Your task to perform on an android device: Search for "logitech g pro" on ebay.com, select the first entry, and add it to the cart. Image 0: 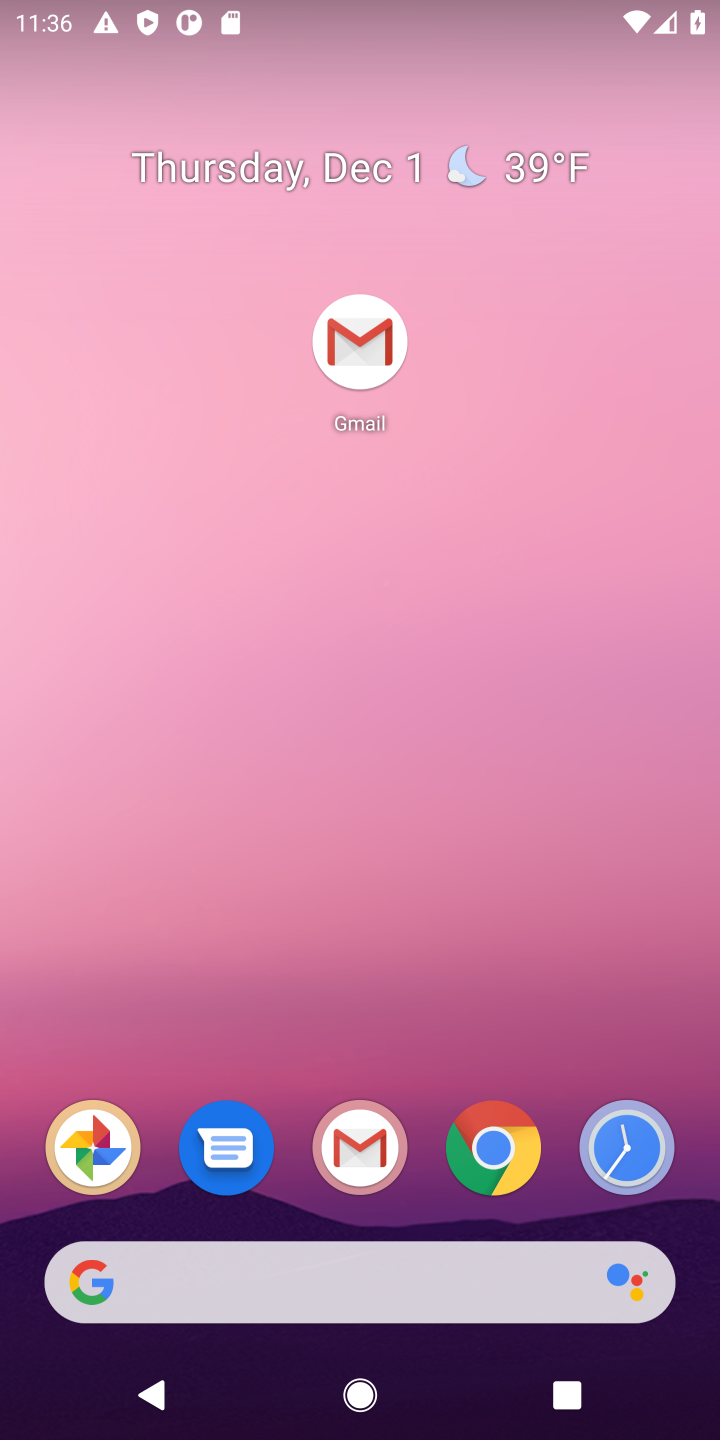
Step 0: press home button
Your task to perform on an android device: Search for "logitech g pro" on ebay.com, select the first entry, and add it to the cart. Image 1: 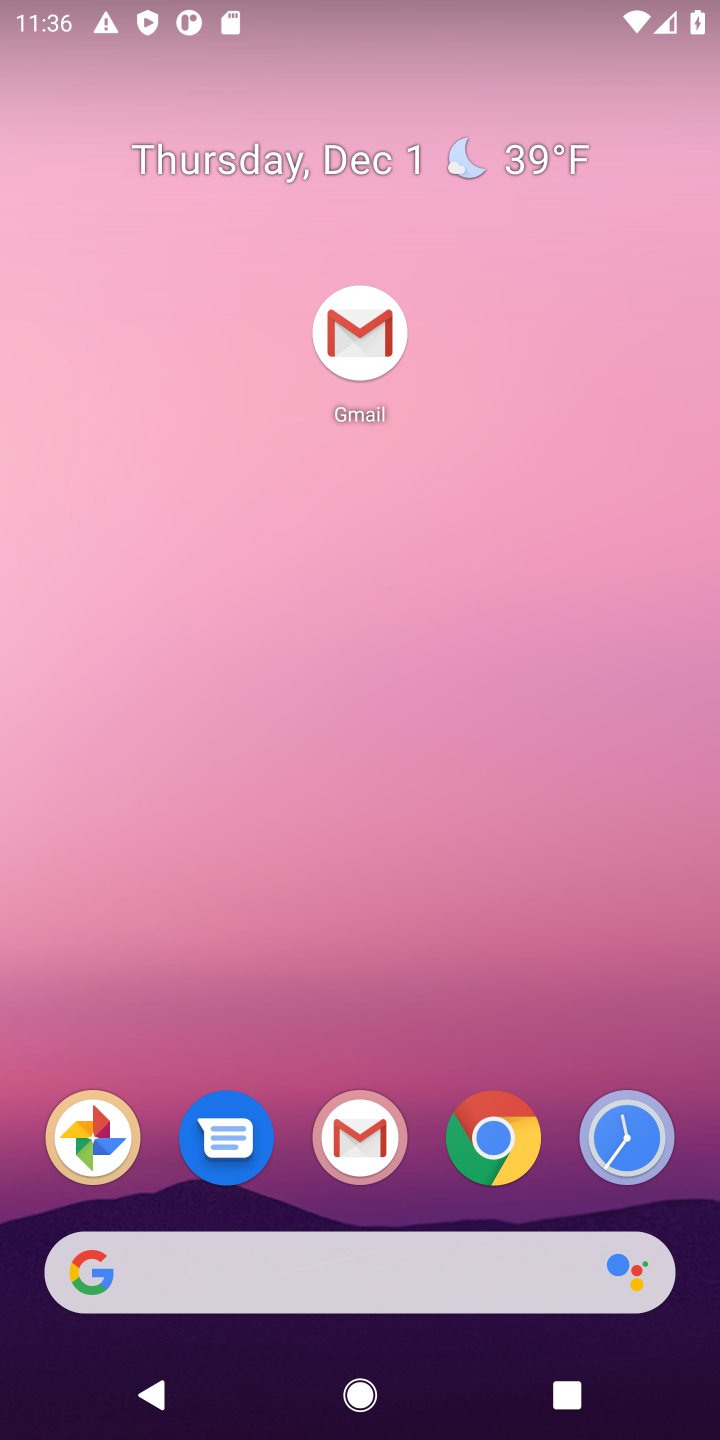
Step 1: drag from (407, 1192) to (456, 325)
Your task to perform on an android device: Search for "logitech g pro" on ebay.com, select the first entry, and add it to the cart. Image 2: 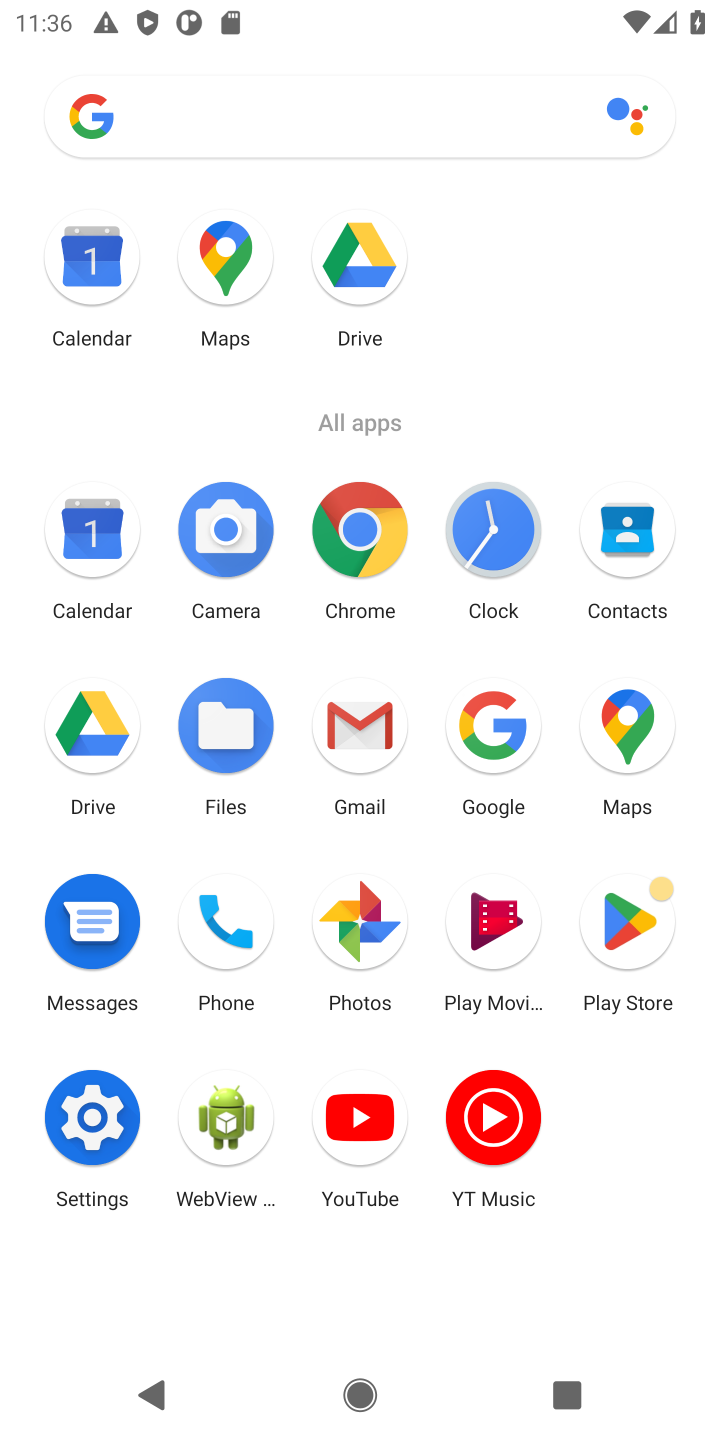
Step 2: click (500, 745)
Your task to perform on an android device: Search for "logitech g pro" on ebay.com, select the first entry, and add it to the cart. Image 3: 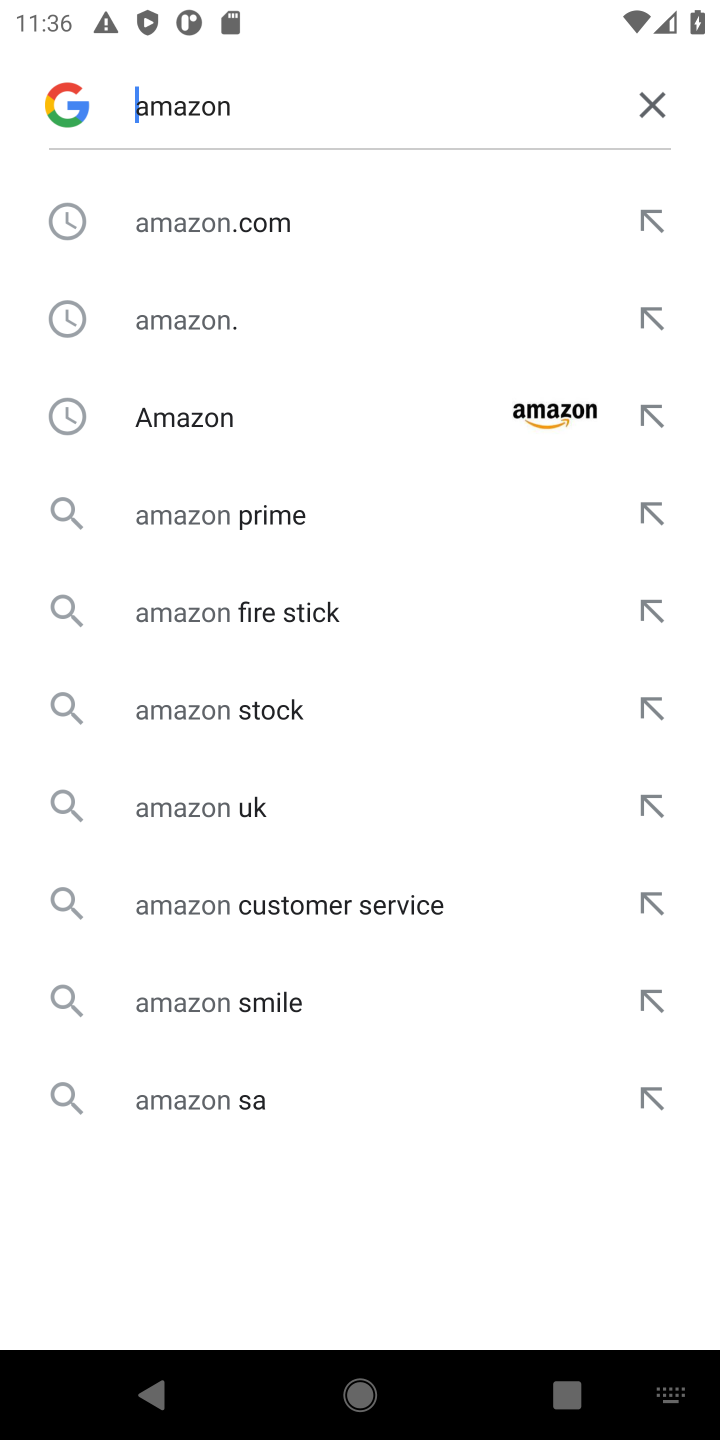
Step 3: click (660, 115)
Your task to perform on an android device: Search for "logitech g pro" on ebay.com, select the first entry, and add it to the cart. Image 4: 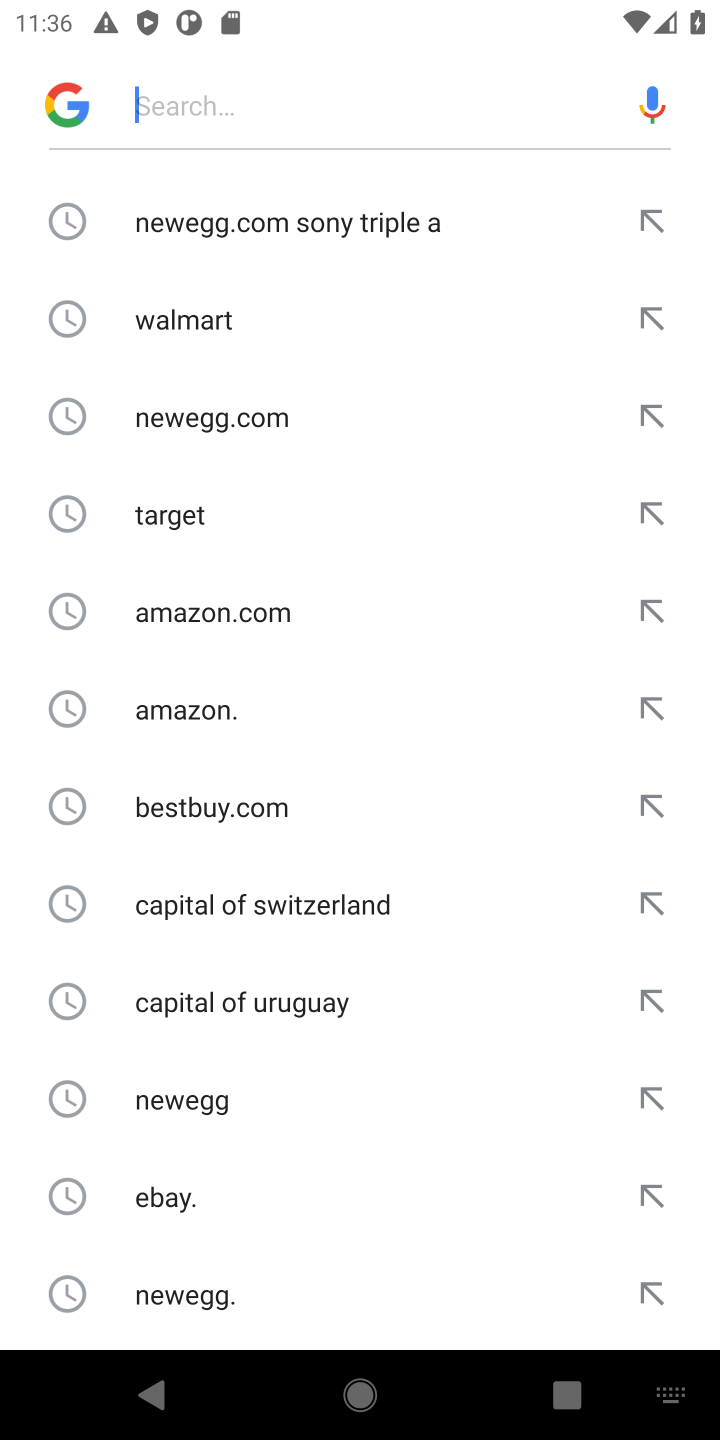
Step 4: type "ebay.com"
Your task to perform on an android device: Search for "logitech g pro" on ebay.com, select the first entry, and add it to the cart. Image 5: 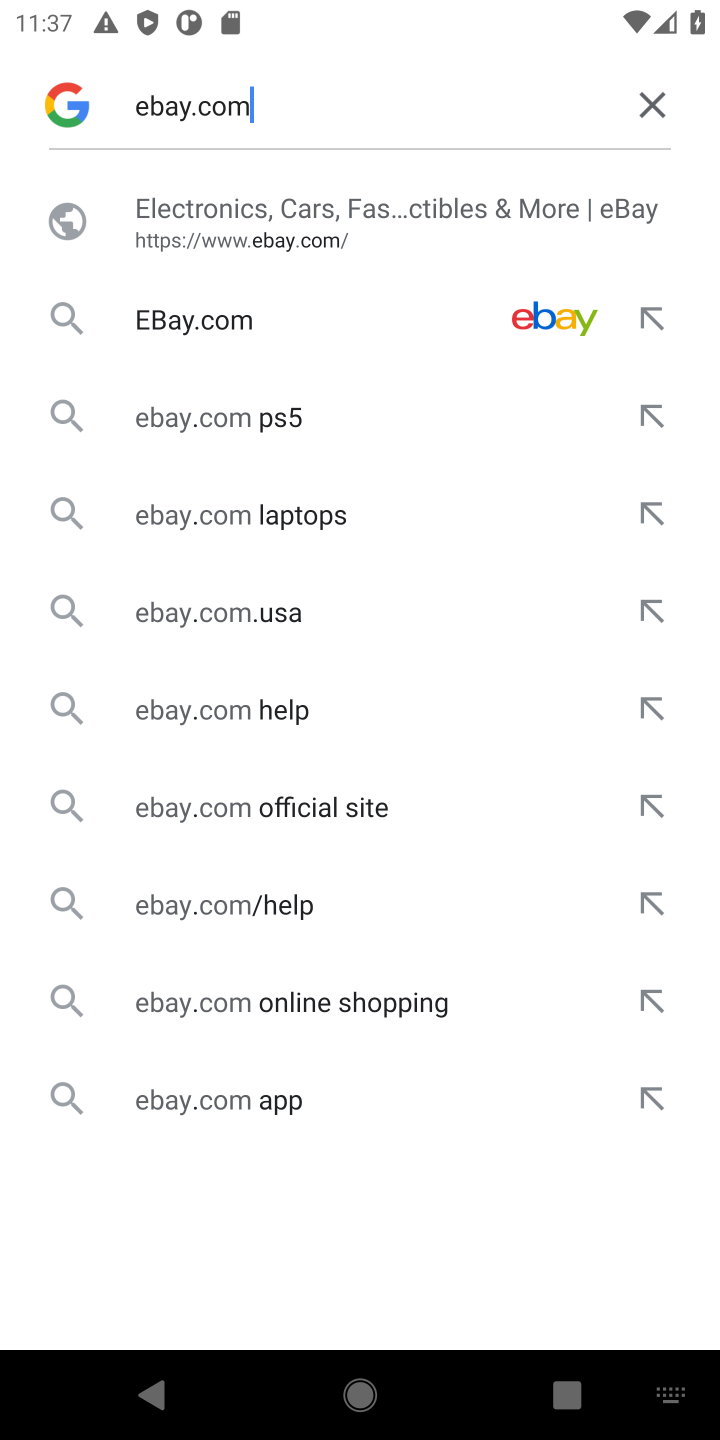
Step 5: click (319, 224)
Your task to perform on an android device: Search for "logitech g pro" on ebay.com, select the first entry, and add it to the cart. Image 6: 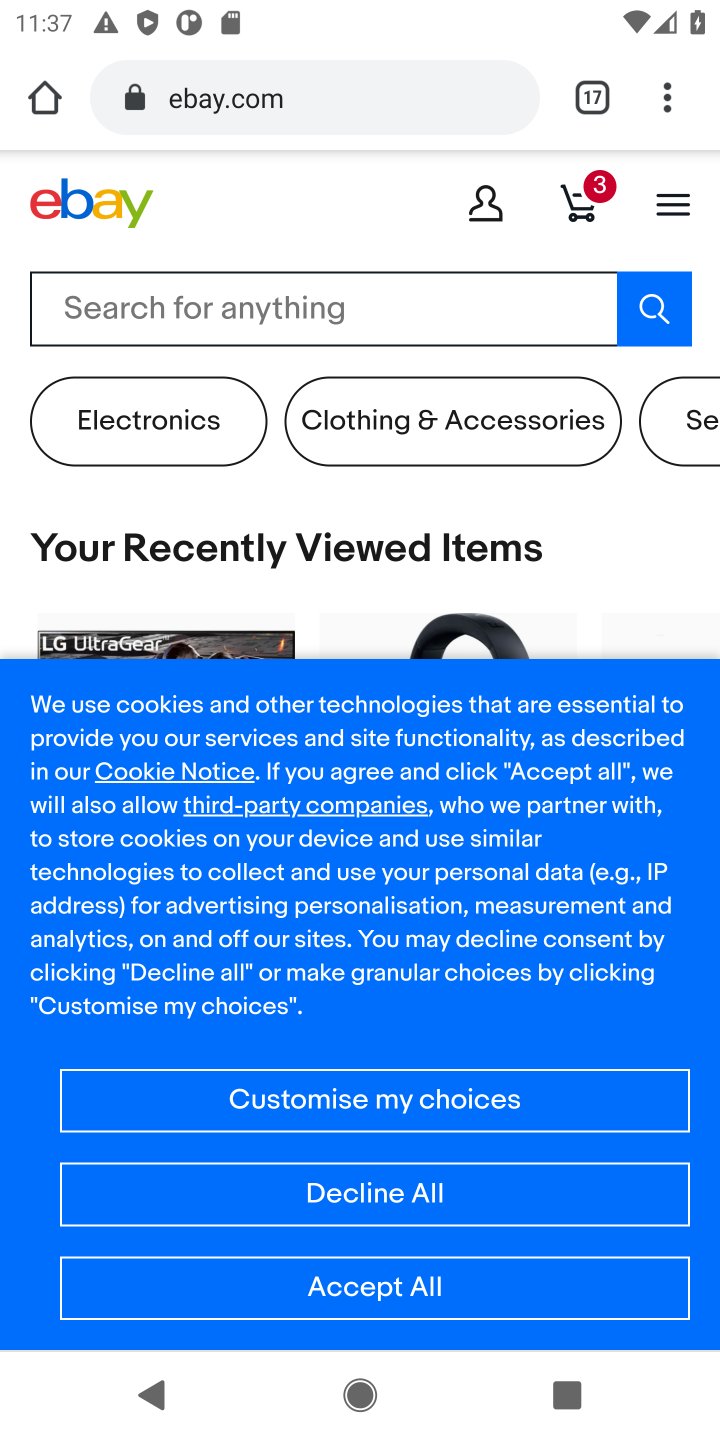
Step 6: click (406, 1288)
Your task to perform on an android device: Search for "logitech g pro" on ebay.com, select the first entry, and add it to the cart. Image 7: 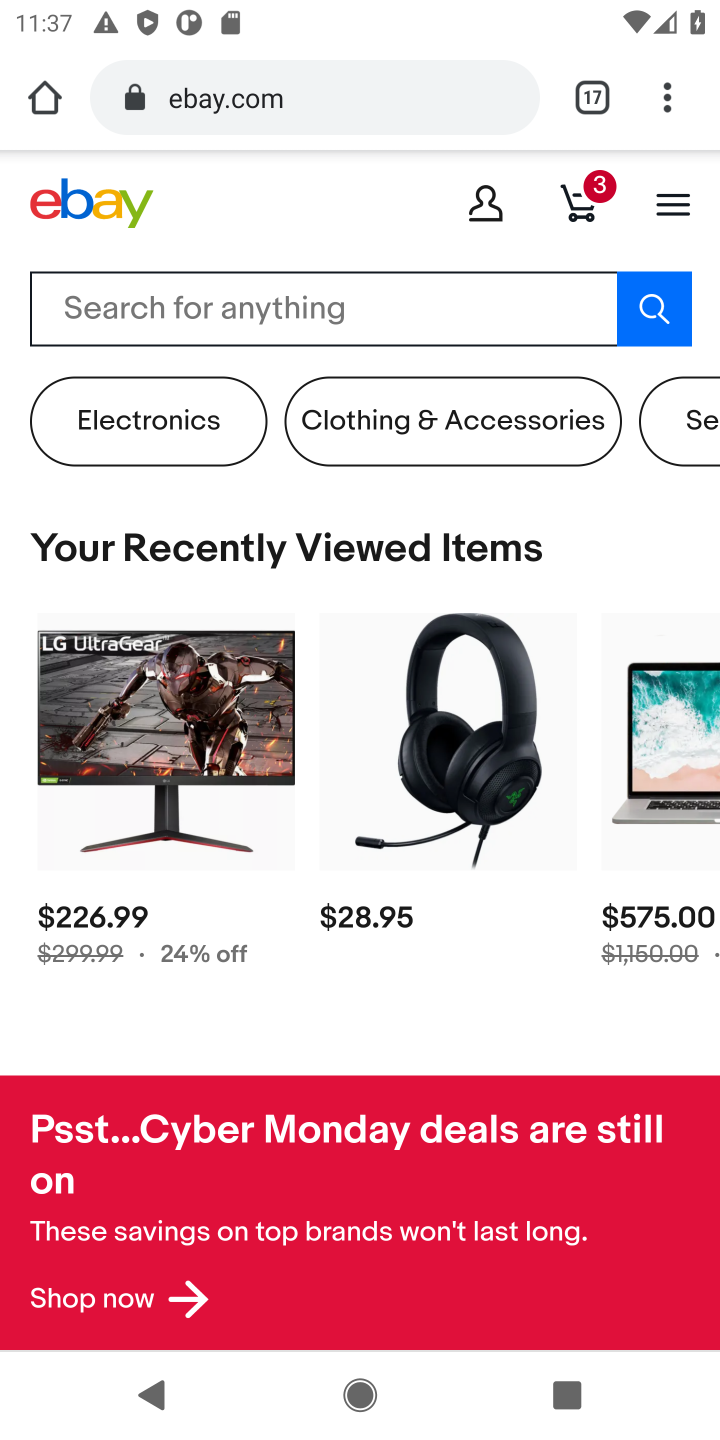
Step 7: click (381, 327)
Your task to perform on an android device: Search for "logitech g pro" on ebay.com, select the first entry, and add it to the cart. Image 8: 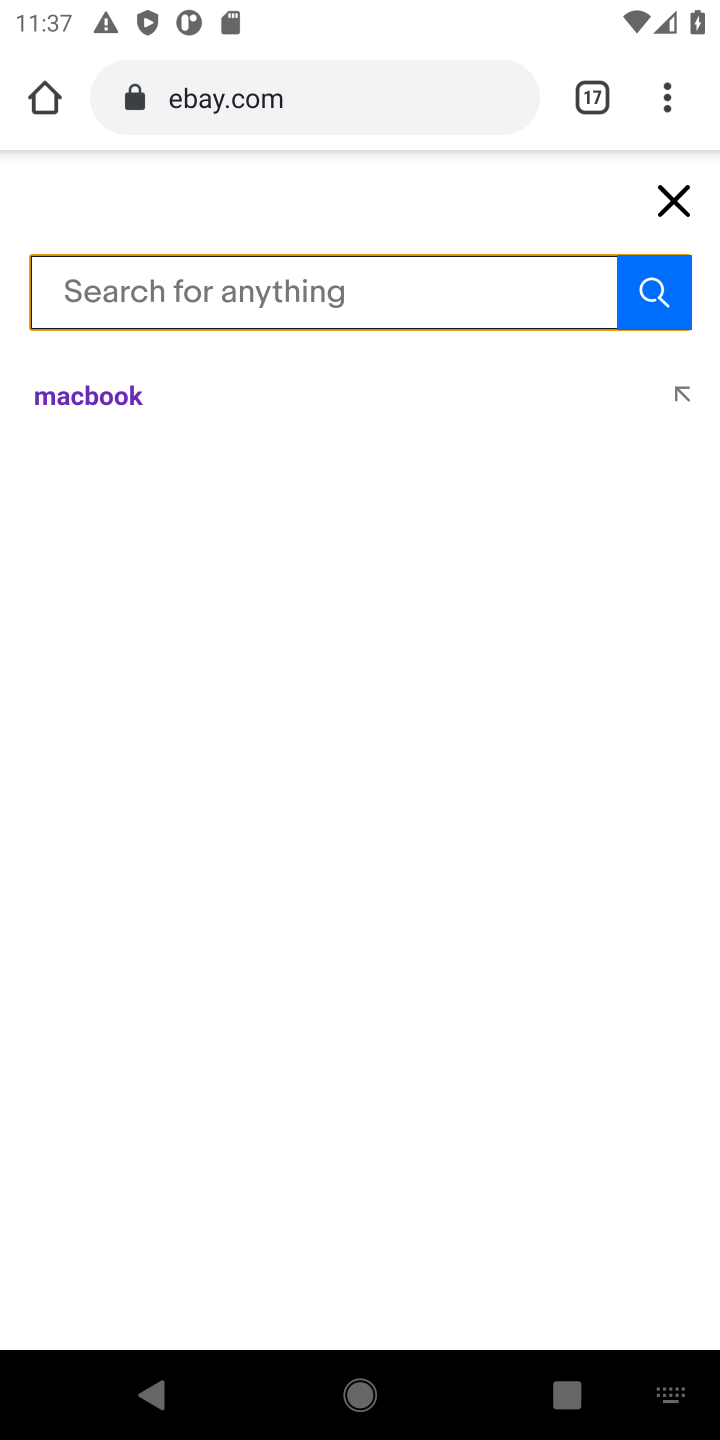
Step 8: type "logitech g pro"
Your task to perform on an android device: Search for "logitech g pro" on ebay.com, select the first entry, and add it to the cart. Image 9: 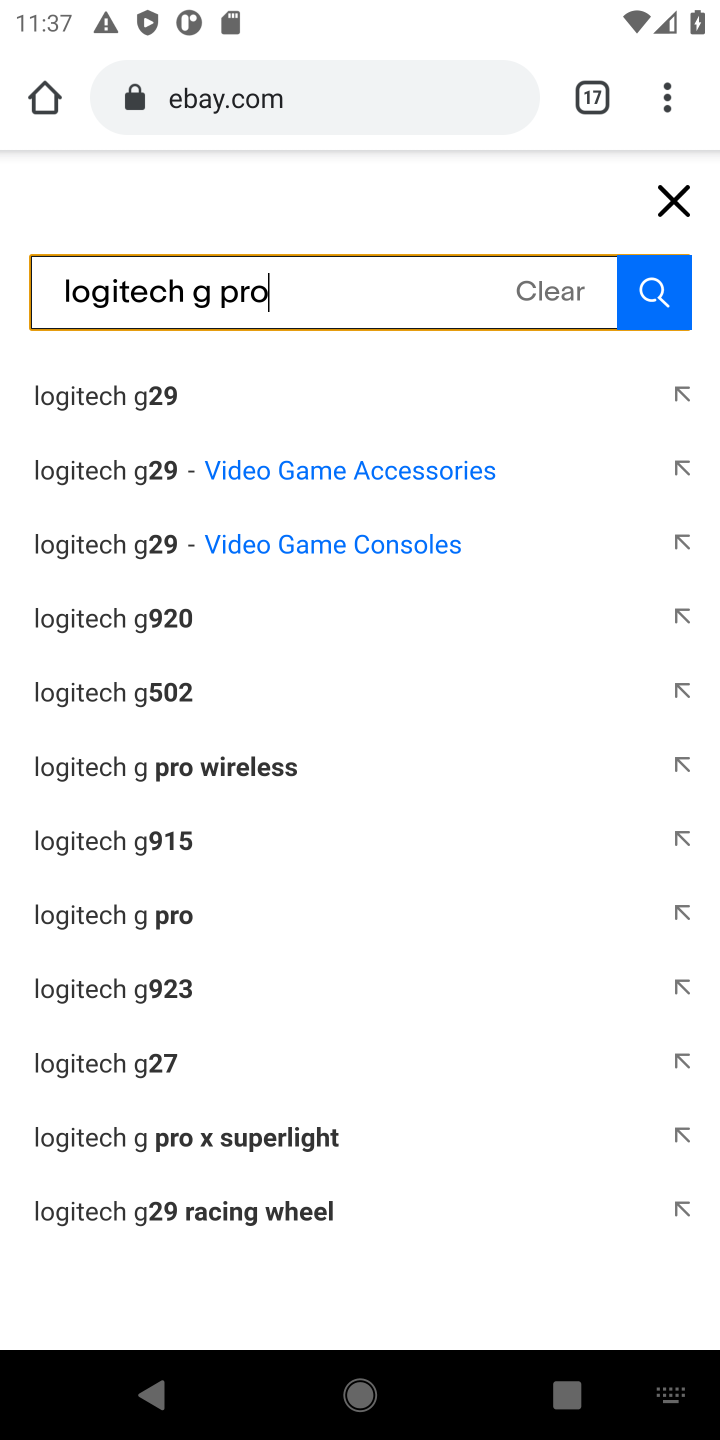
Step 9: click (114, 921)
Your task to perform on an android device: Search for "logitech g pro" on ebay.com, select the first entry, and add it to the cart. Image 10: 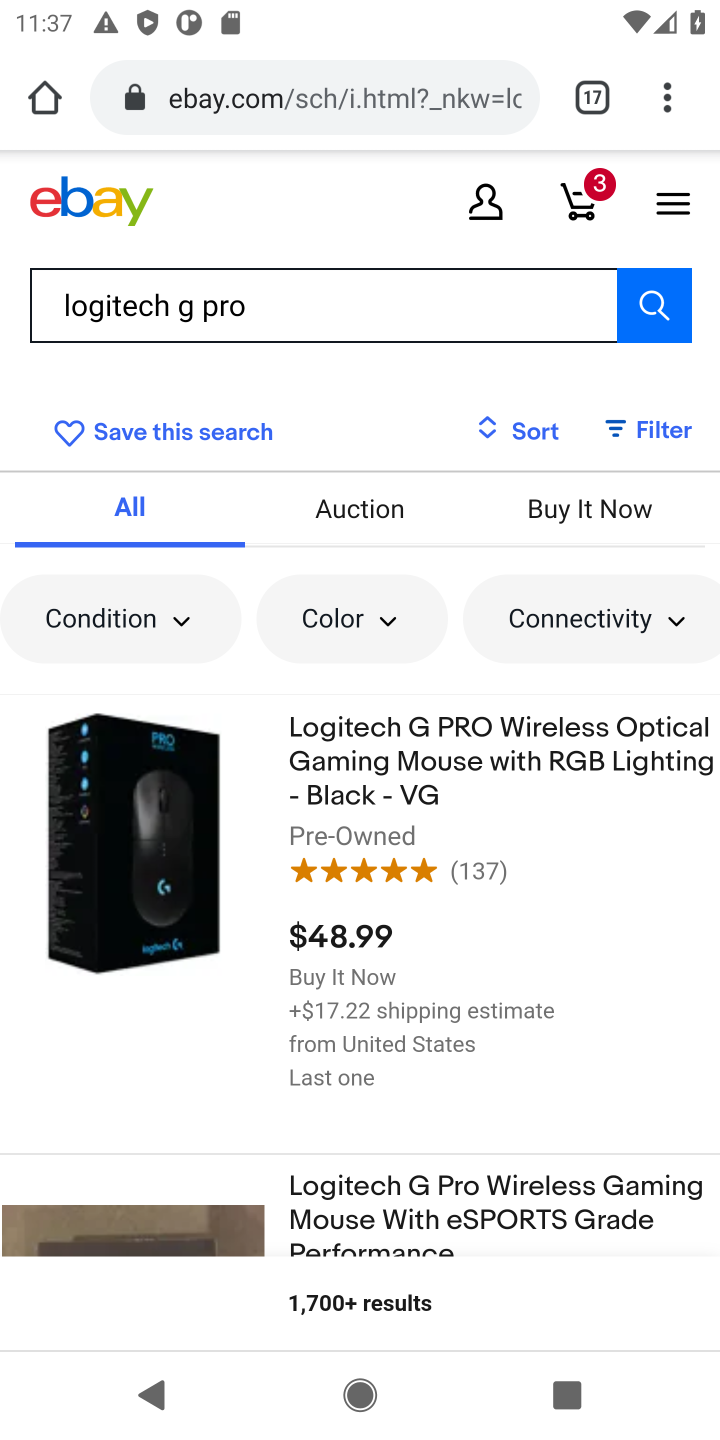
Step 10: click (175, 822)
Your task to perform on an android device: Search for "logitech g pro" on ebay.com, select the first entry, and add it to the cart. Image 11: 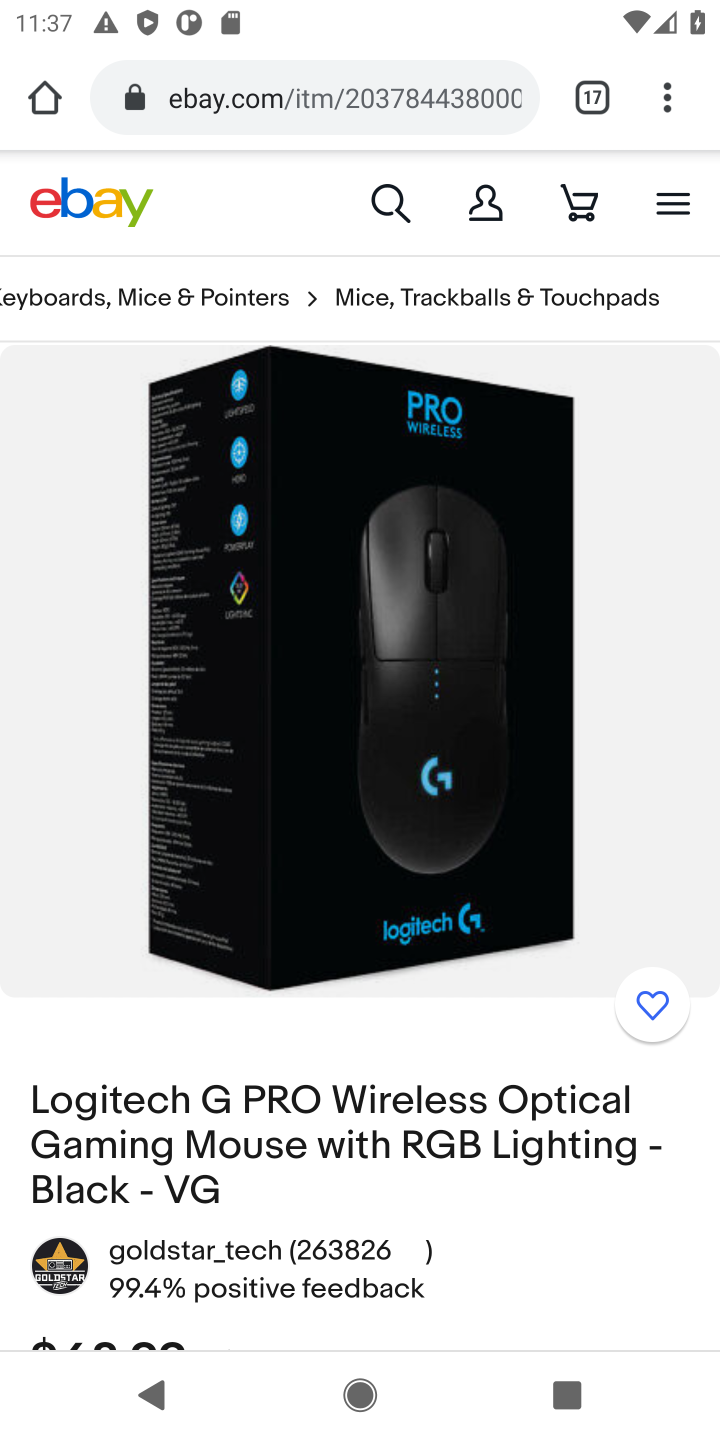
Step 11: drag from (352, 1025) to (394, 734)
Your task to perform on an android device: Search for "logitech g pro" on ebay.com, select the first entry, and add it to the cart. Image 12: 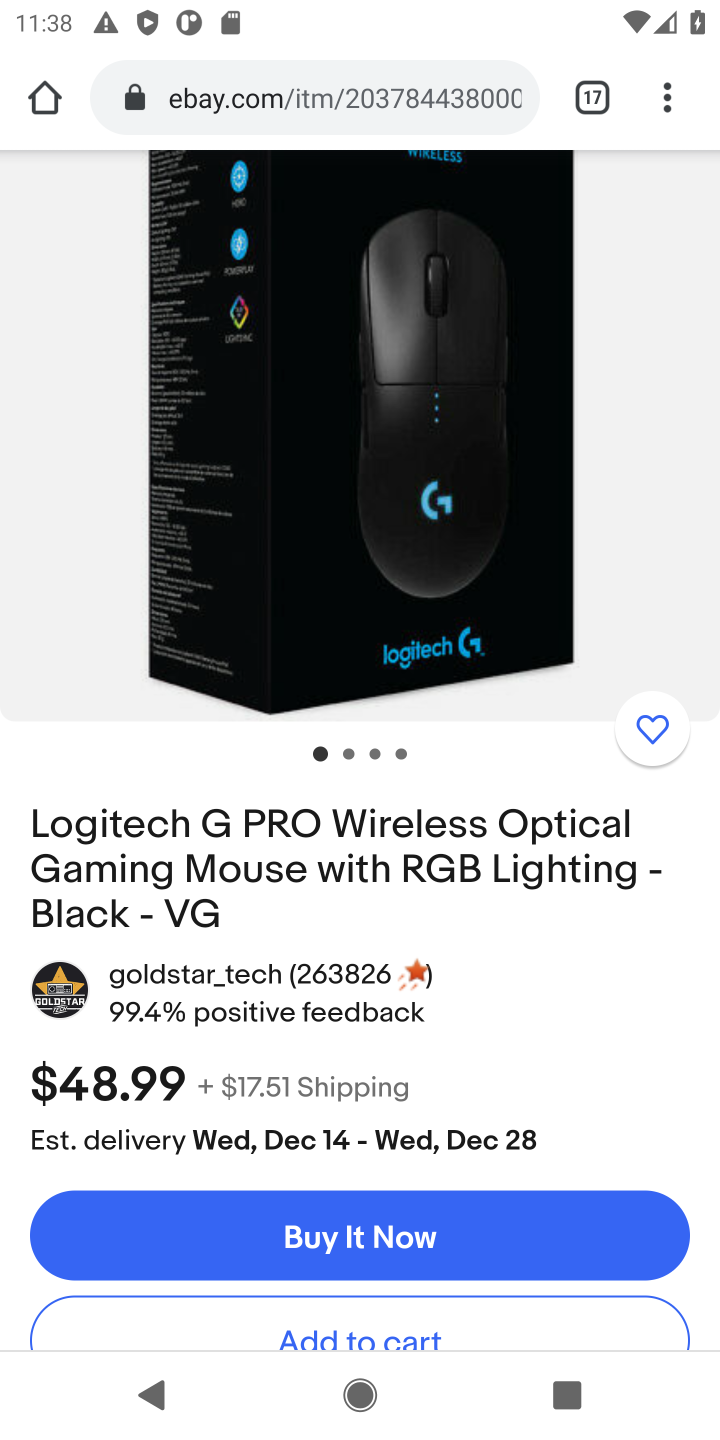
Step 12: drag from (396, 1101) to (446, 816)
Your task to perform on an android device: Search for "logitech g pro" on ebay.com, select the first entry, and add it to the cart. Image 13: 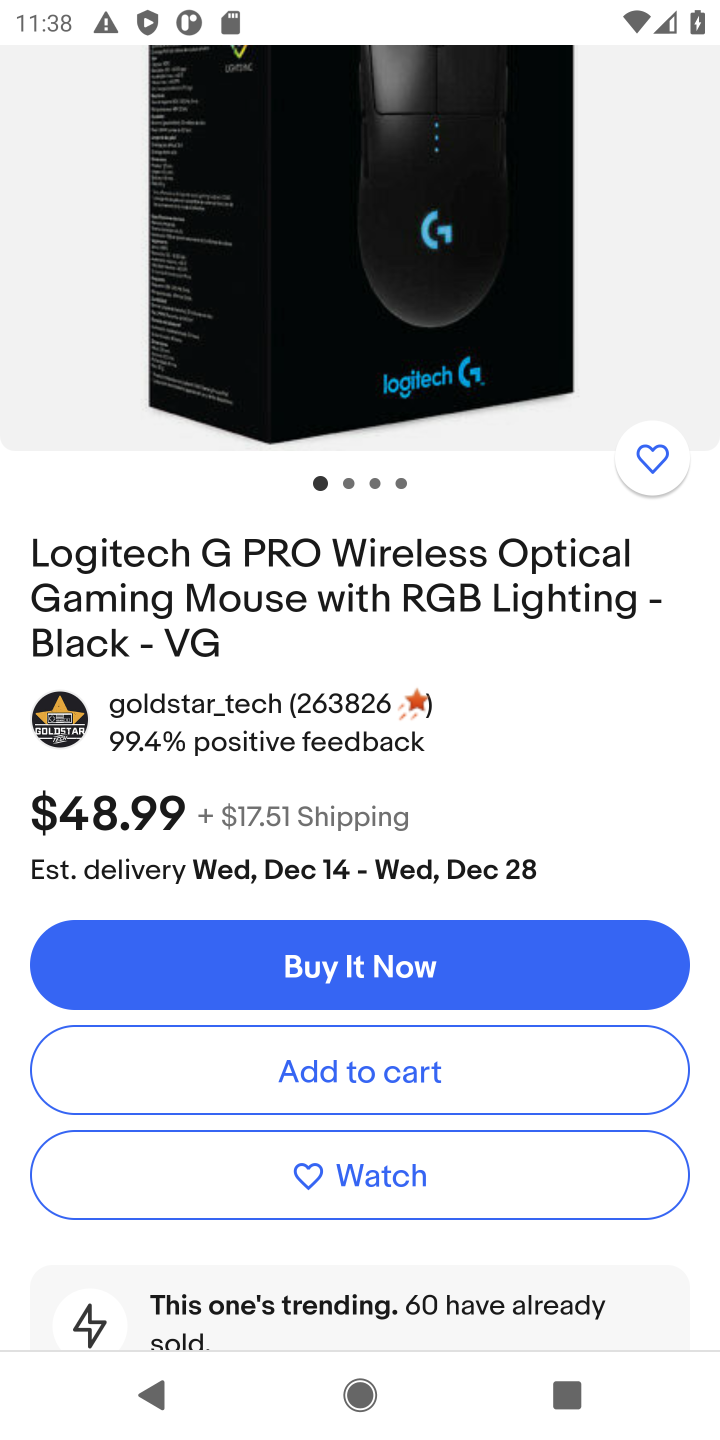
Step 13: click (424, 1072)
Your task to perform on an android device: Search for "logitech g pro" on ebay.com, select the first entry, and add it to the cart. Image 14: 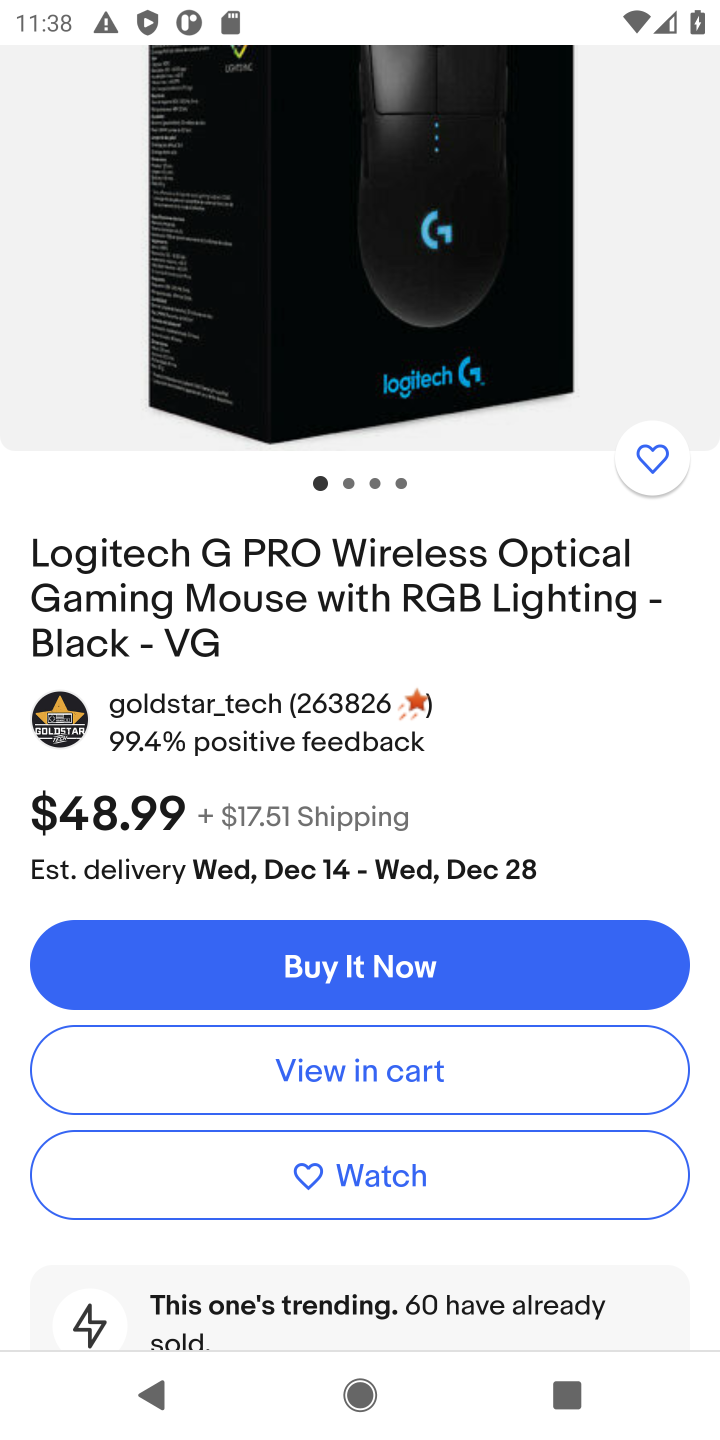
Step 14: task complete